Your task to perform on an android device: Add "razer nari" to the cart on amazon Image 0: 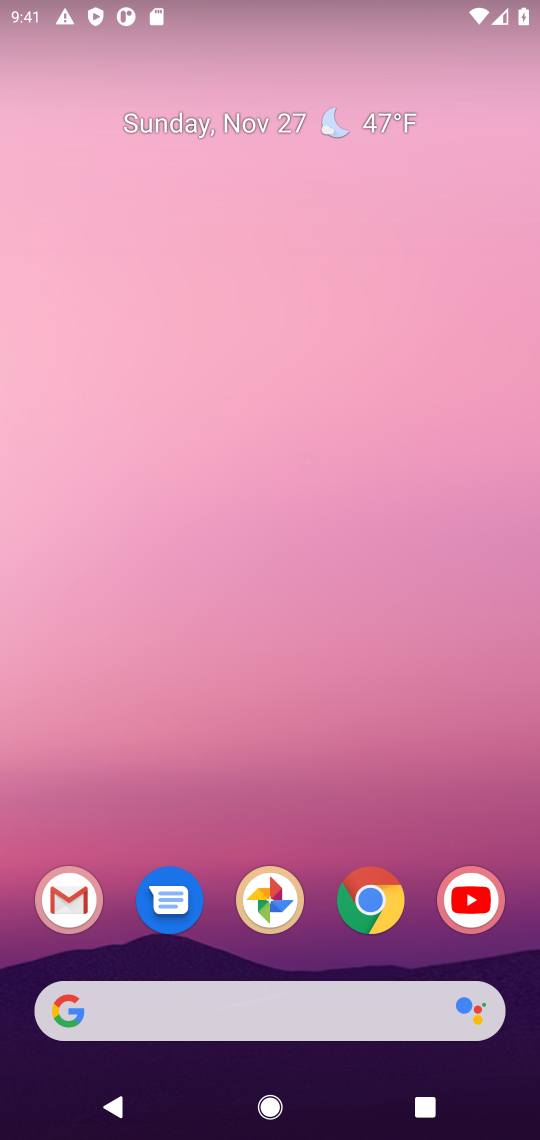
Step 0: click (369, 900)
Your task to perform on an android device: Add "razer nari" to the cart on amazon Image 1: 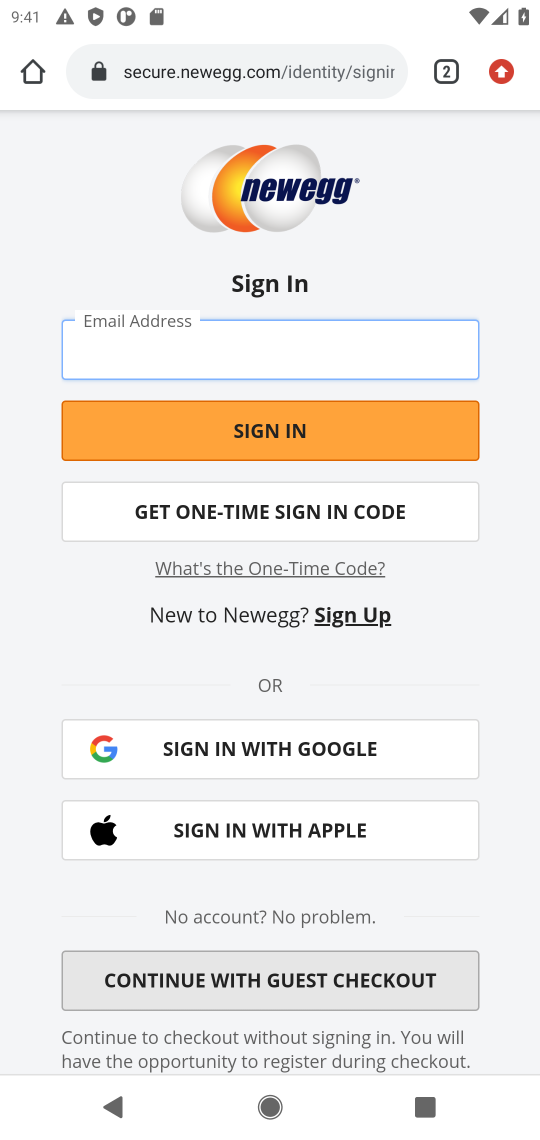
Step 1: click (227, 73)
Your task to perform on an android device: Add "razer nari" to the cart on amazon Image 2: 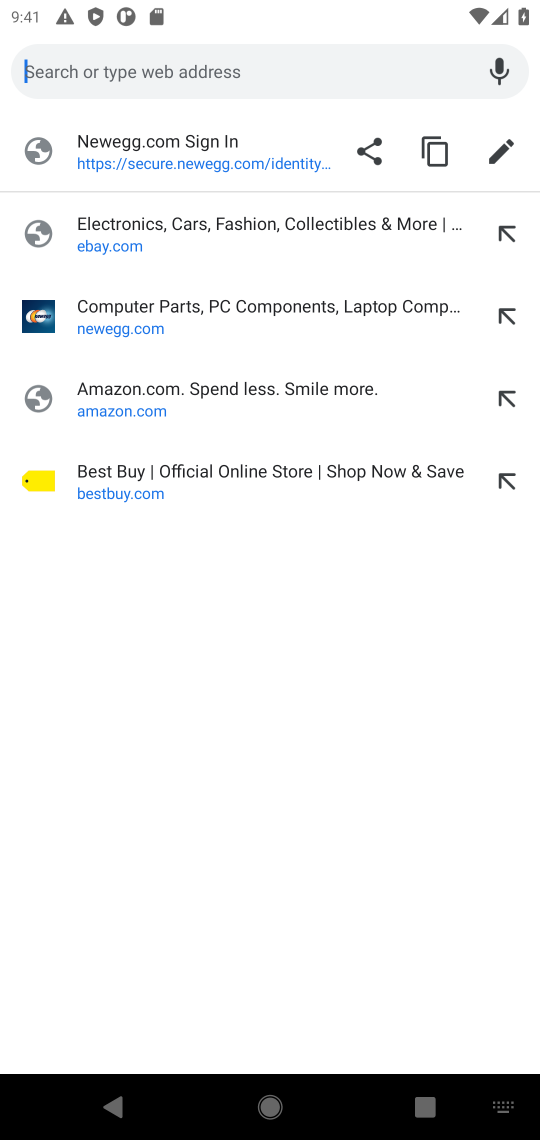
Step 2: click (97, 391)
Your task to perform on an android device: Add "razer nari" to the cart on amazon Image 3: 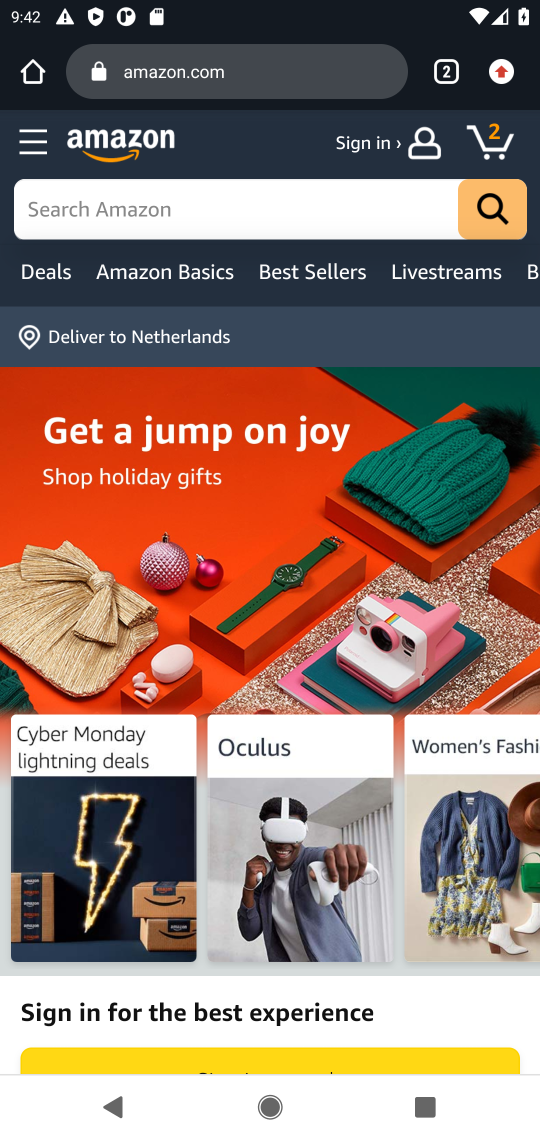
Step 3: click (183, 189)
Your task to perform on an android device: Add "razer nari" to the cart on amazon Image 4: 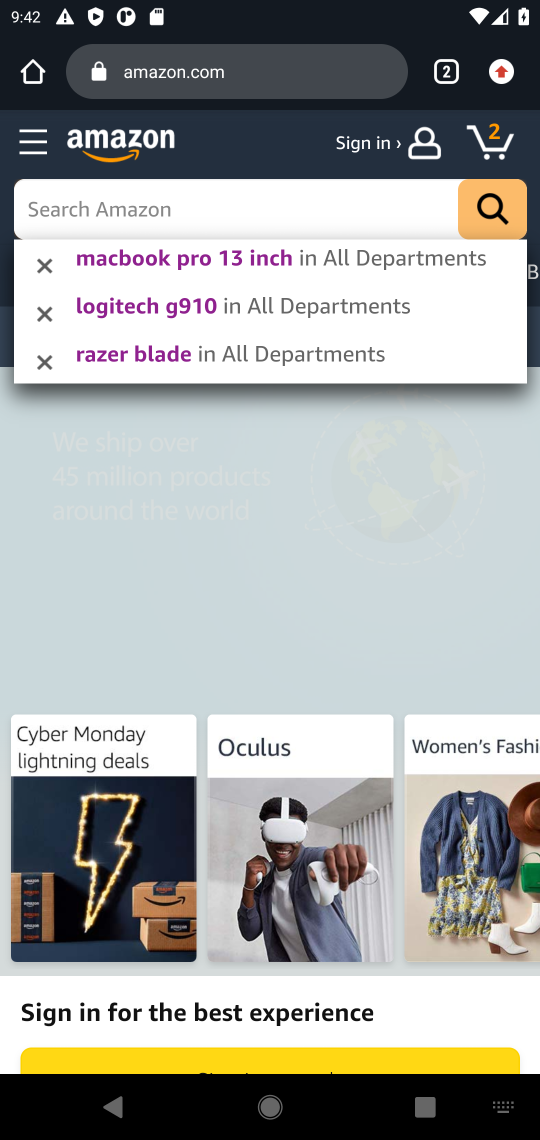
Step 4: type "razer nari"
Your task to perform on an android device: Add "razer nari" to the cart on amazon Image 5: 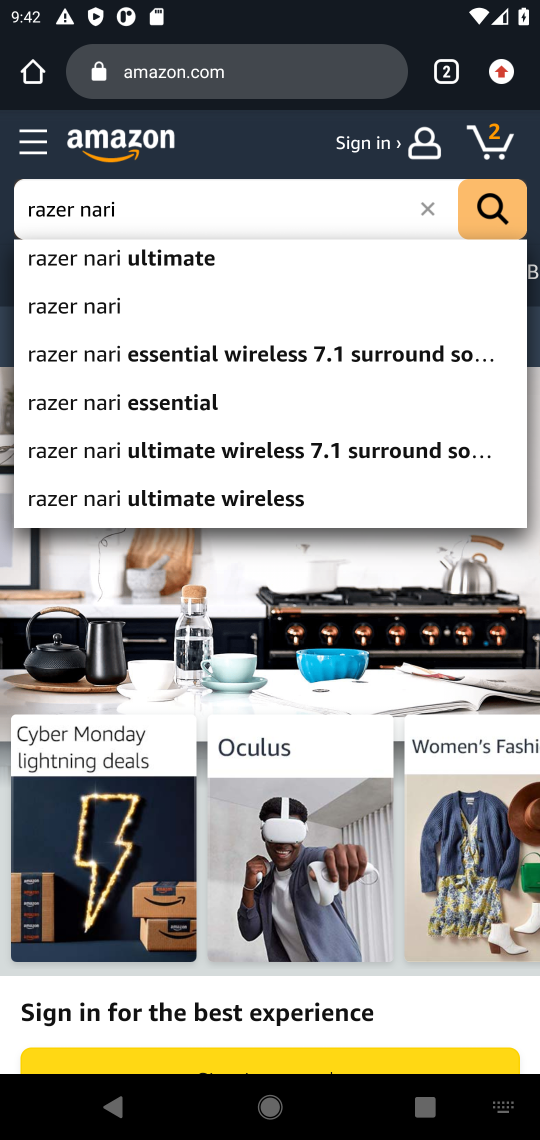
Step 5: click (73, 317)
Your task to perform on an android device: Add "razer nari" to the cart on amazon Image 6: 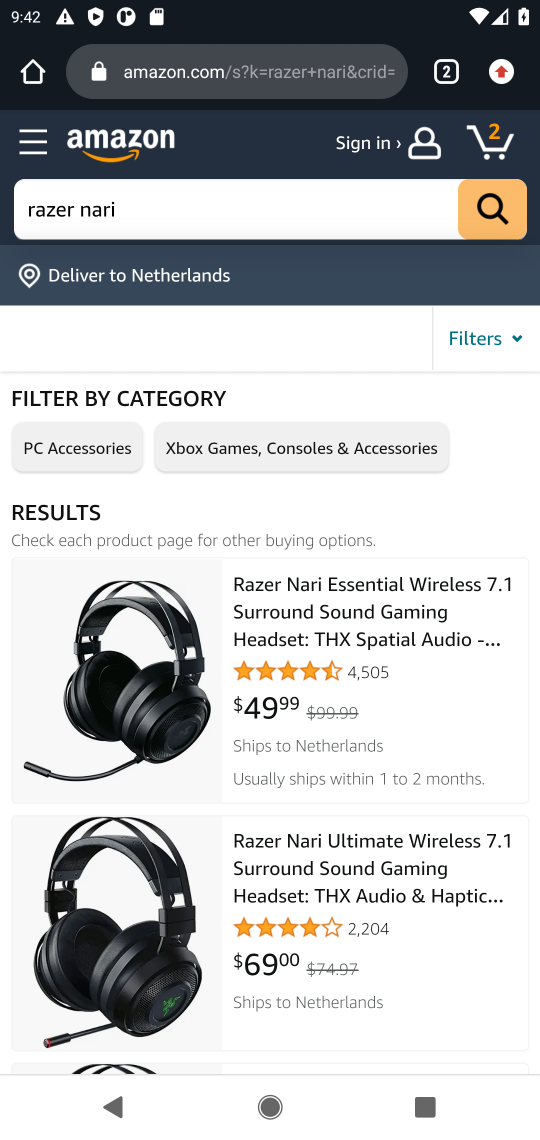
Step 6: click (270, 586)
Your task to perform on an android device: Add "razer nari" to the cart on amazon Image 7: 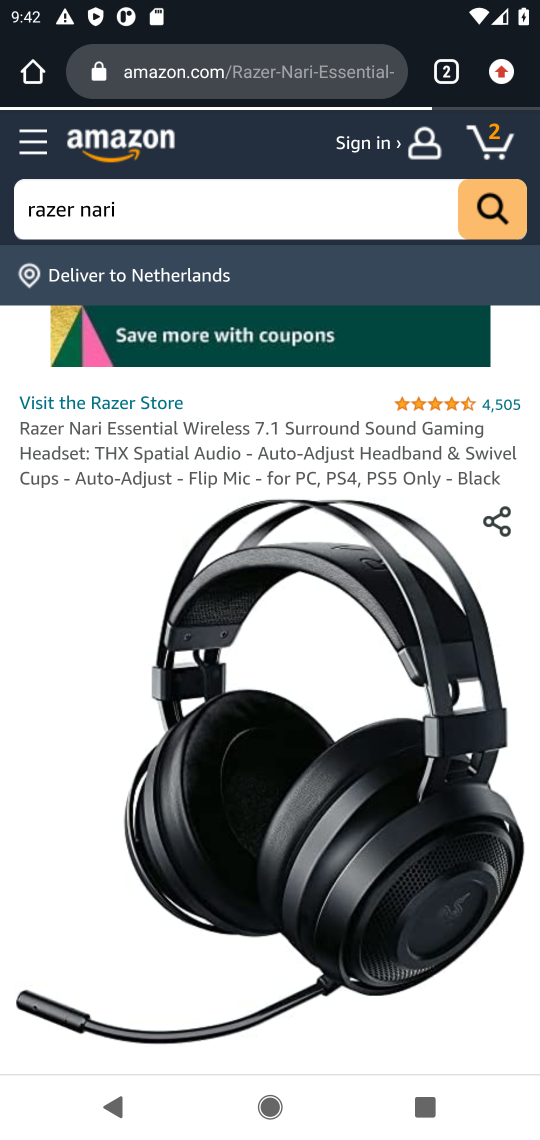
Step 7: drag from (248, 739) to (232, 184)
Your task to perform on an android device: Add "razer nari" to the cart on amazon Image 8: 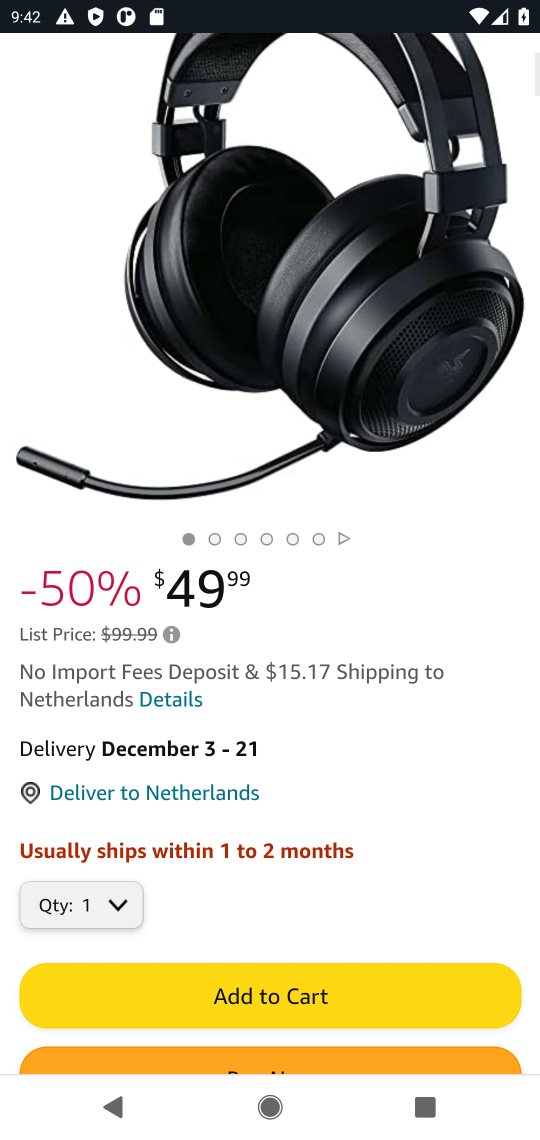
Step 8: drag from (195, 695) to (181, 373)
Your task to perform on an android device: Add "razer nari" to the cart on amazon Image 9: 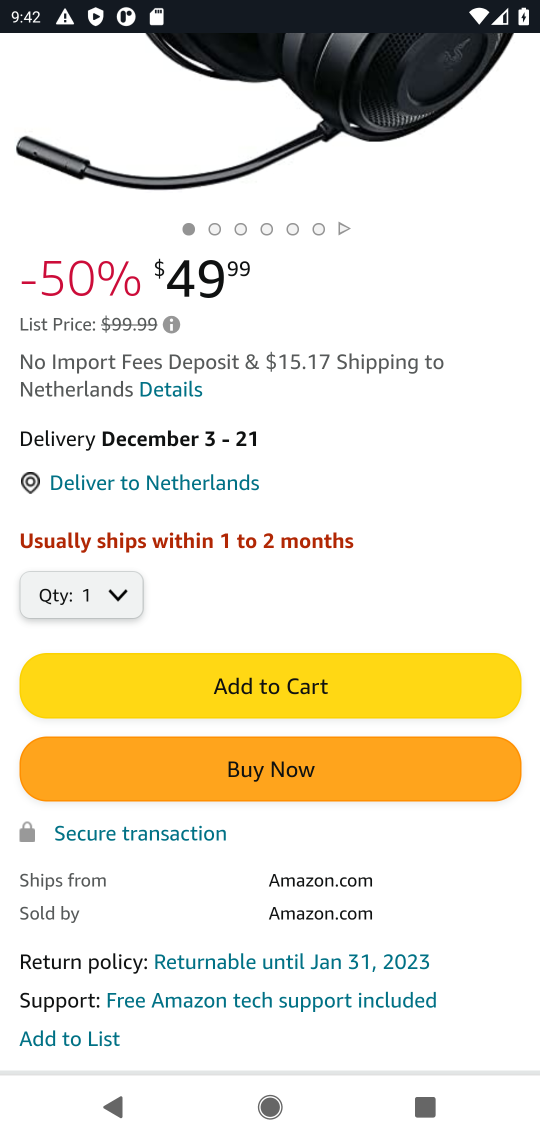
Step 9: click (217, 699)
Your task to perform on an android device: Add "razer nari" to the cart on amazon Image 10: 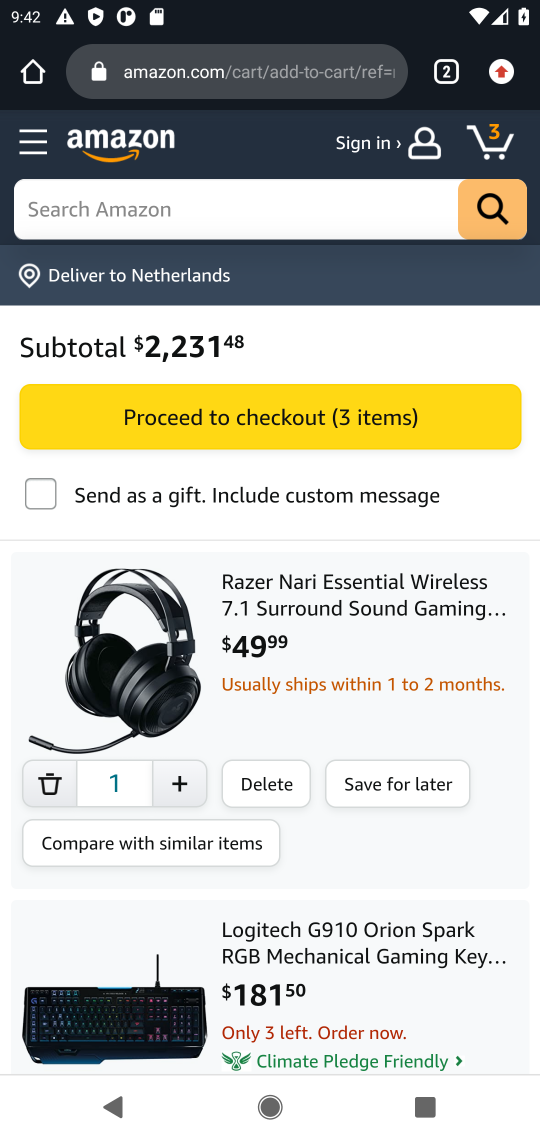
Step 10: task complete